Your task to perform on an android device: What is the capital of Germany? Image 0: 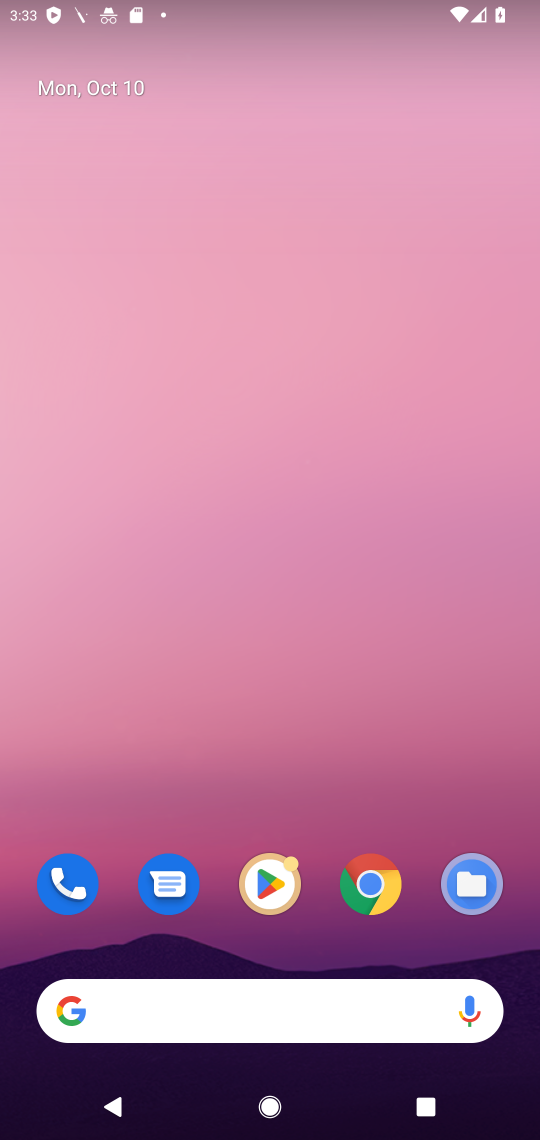
Step 0: click (291, 1004)
Your task to perform on an android device: What is the capital of Germany? Image 1: 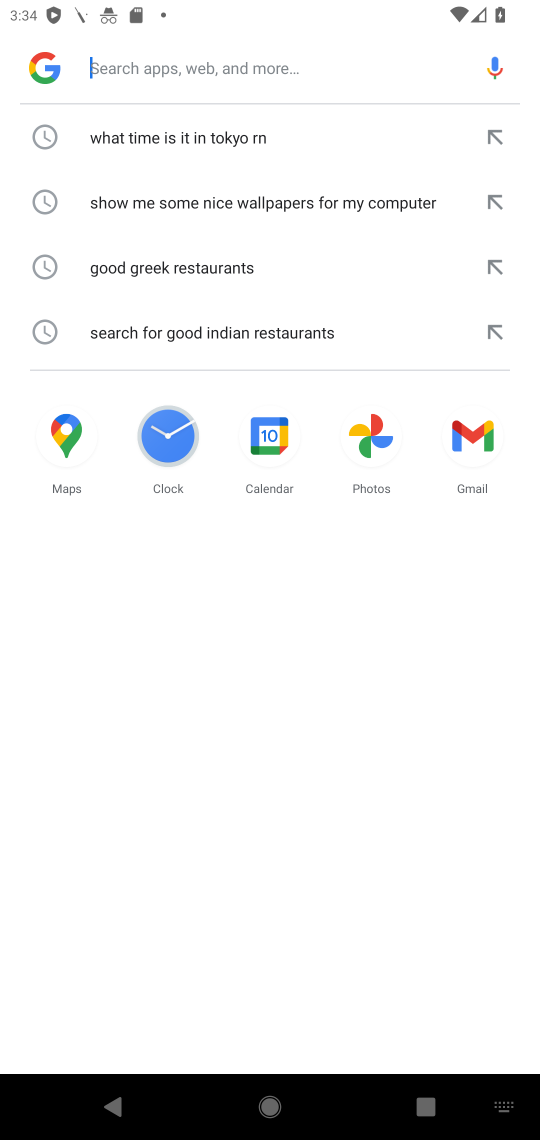
Step 1: type "What is the capital of Germany?"
Your task to perform on an android device: What is the capital of Germany? Image 2: 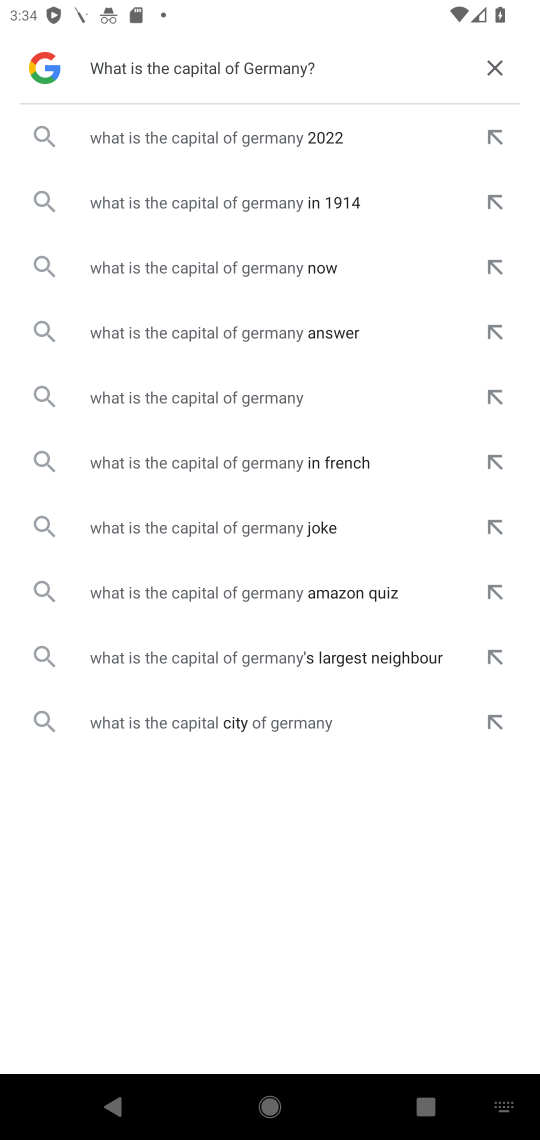
Step 2: click (262, 265)
Your task to perform on an android device: What is the capital of Germany? Image 3: 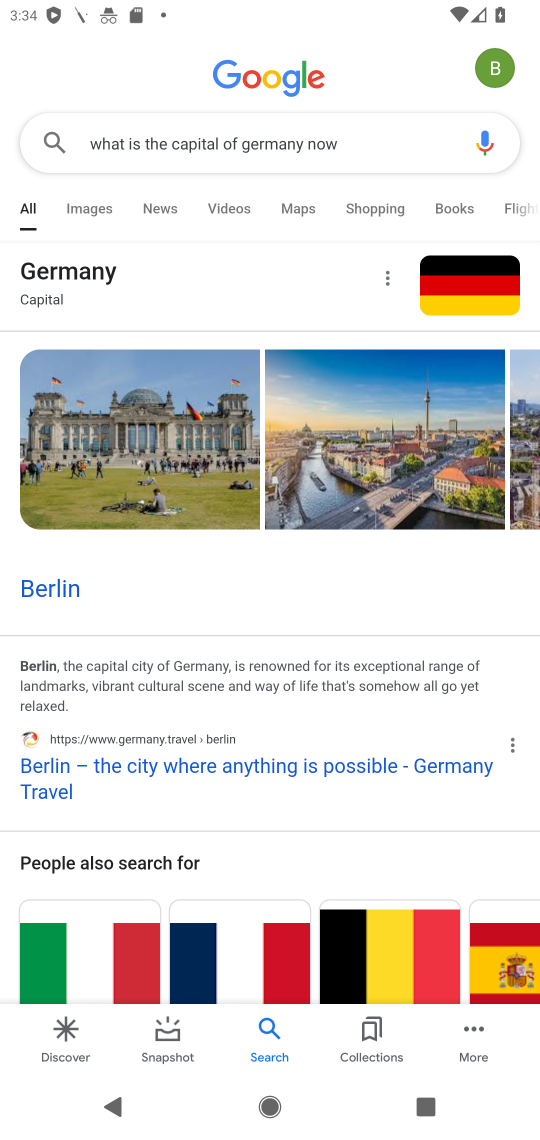
Step 3: task complete